Your task to perform on an android device: install app "Gmail" Image 0: 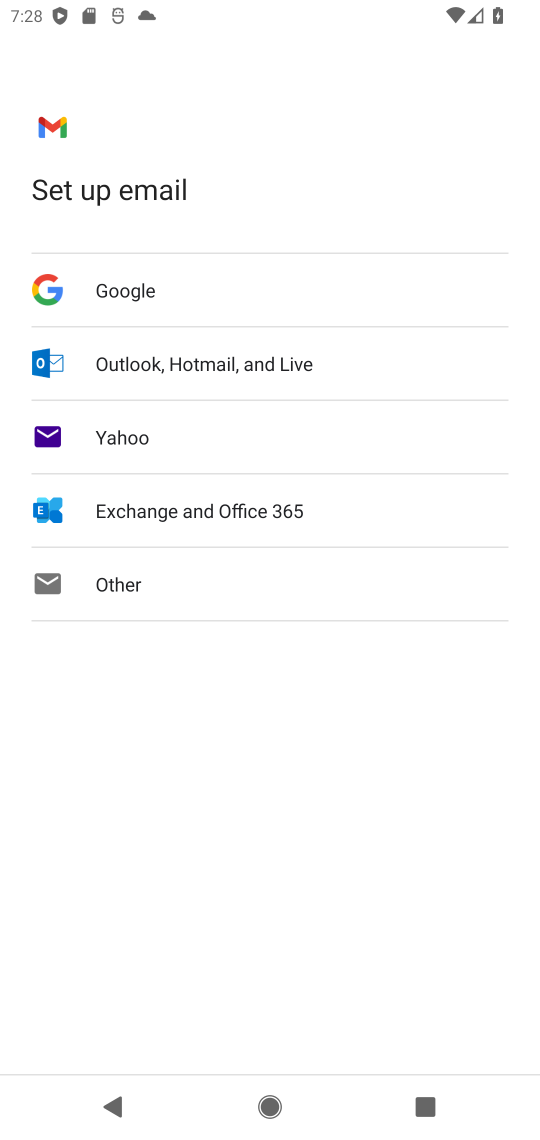
Step 0: press home button
Your task to perform on an android device: install app "Gmail" Image 1: 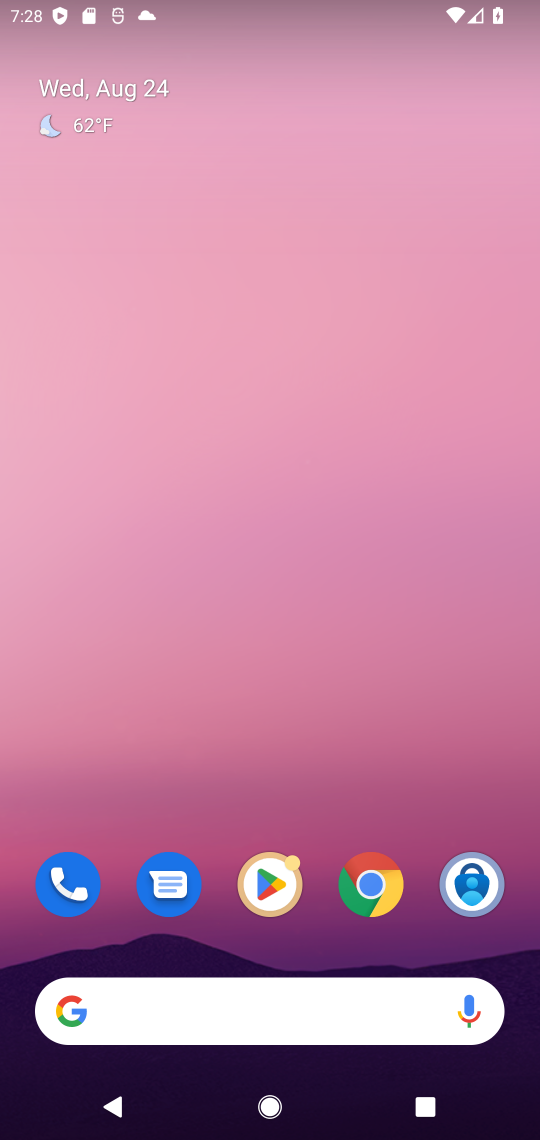
Step 1: click (264, 911)
Your task to perform on an android device: install app "Gmail" Image 2: 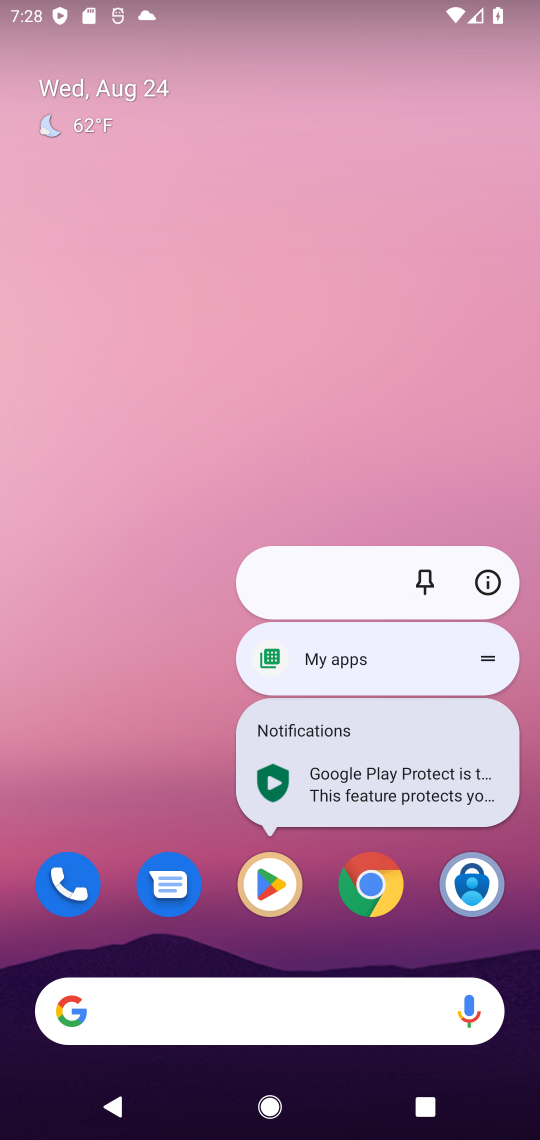
Step 2: click (287, 902)
Your task to perform on an android device: install app "Gmail" Image 3: 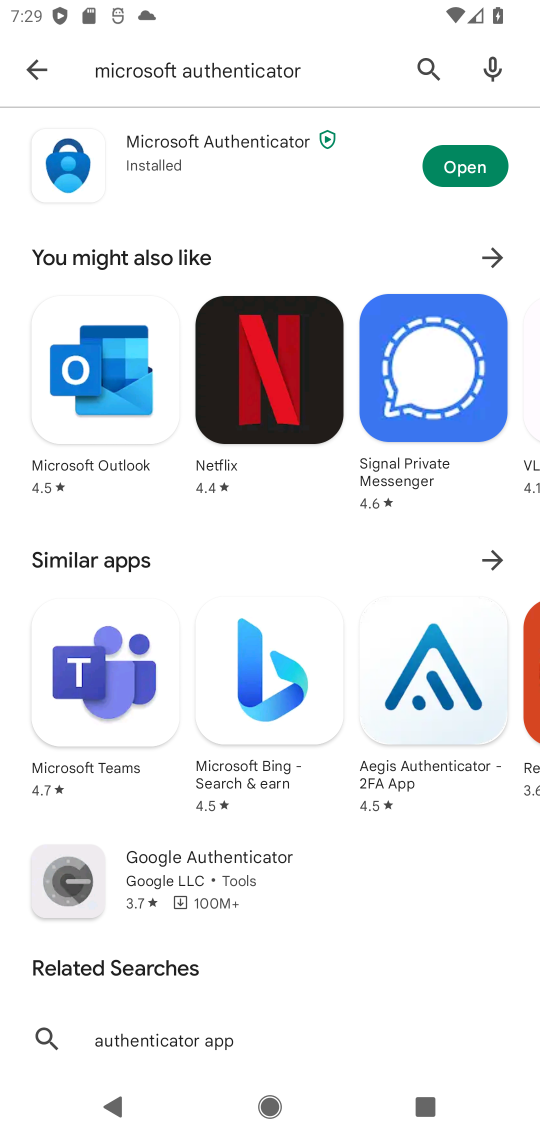
Step 3: click (413, 77)
Your task to perform on an android device: install app "Gmail" Image 4: 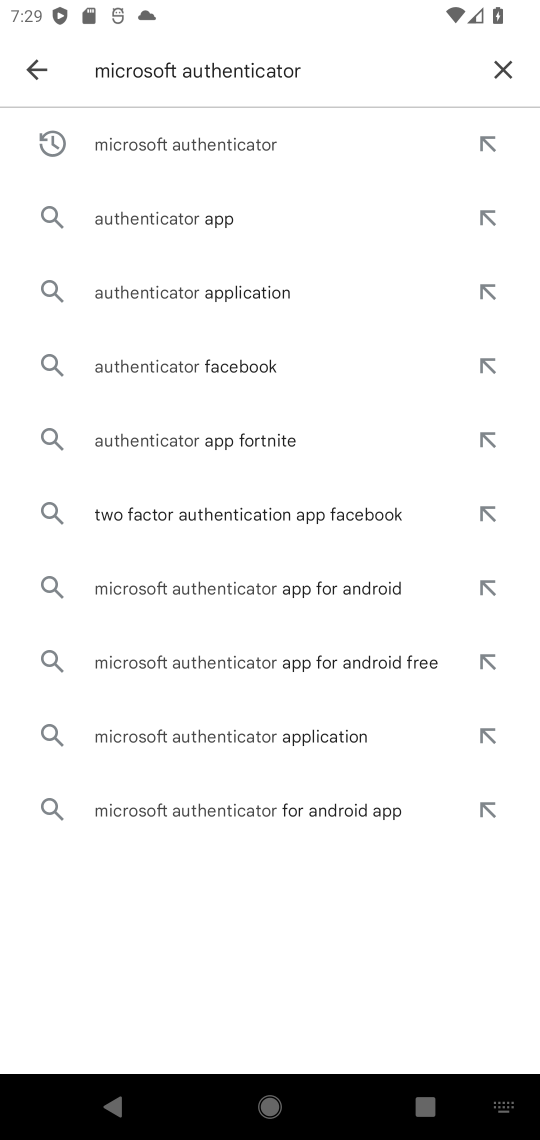
Step 4: click (502, 68)
Your task to perform on an android device: install app "Gmail" Image 5: 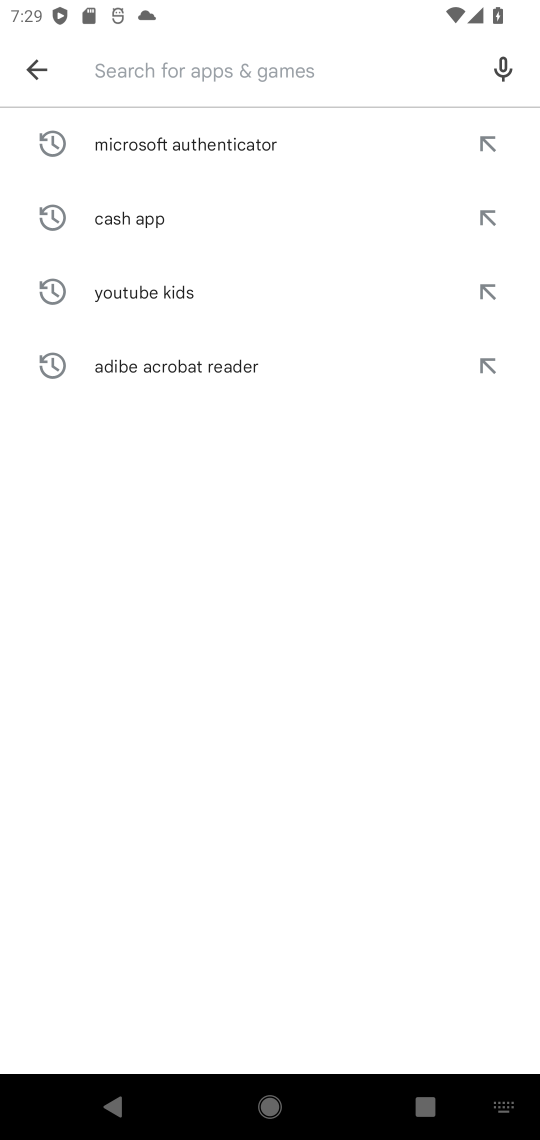
Step 5: type "gmail"
Your task to perform on an android device: install app "Gmail" Image 6: 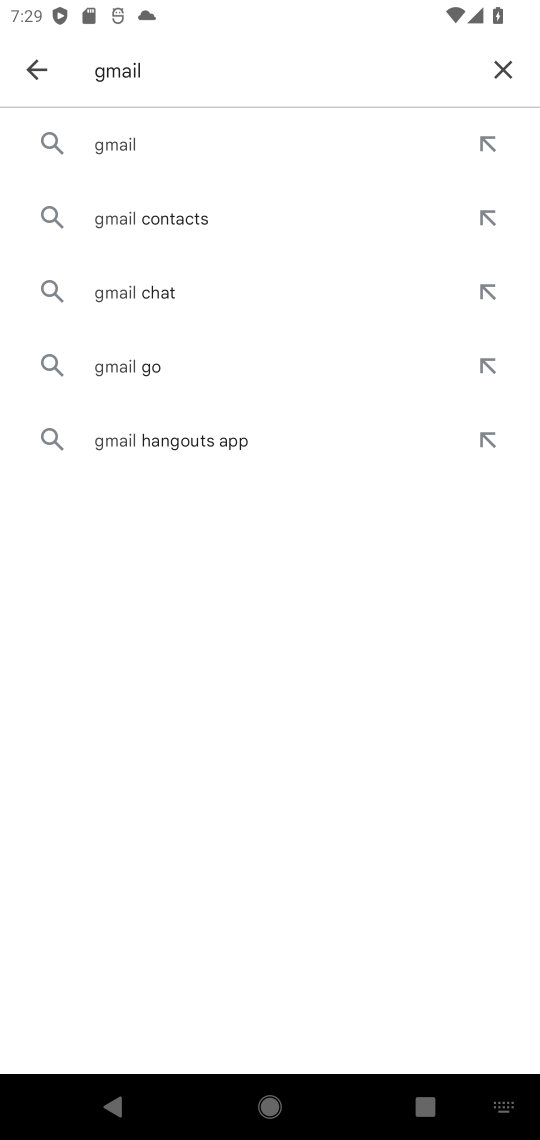
Step 6: click (164, 143)
Your task to perform on an android device: install app "Gmail" Image 7: 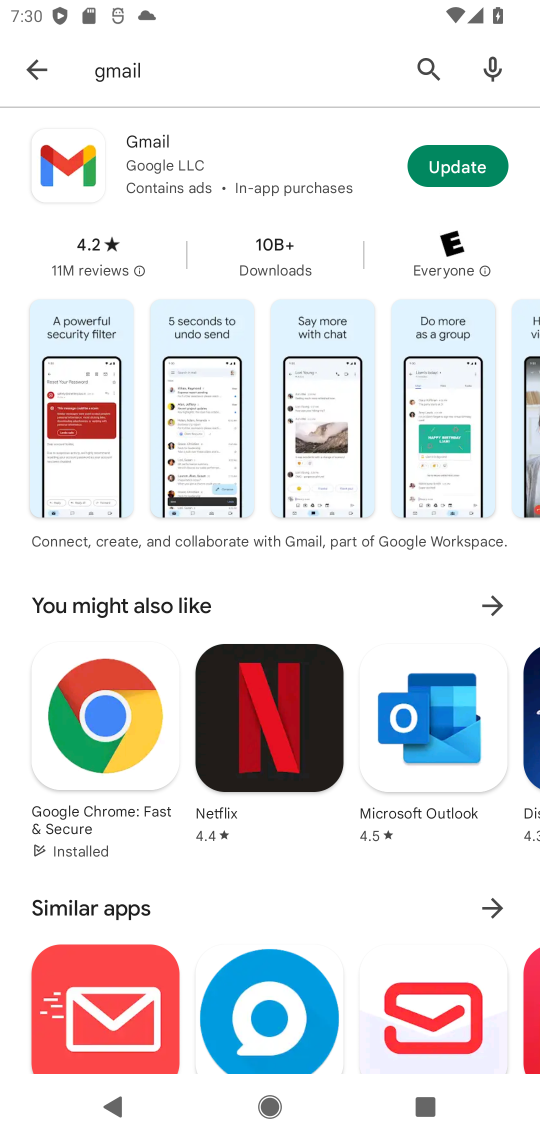
Step 7: task complete